Your task to perform on an android device: Open my contact list Image 0: 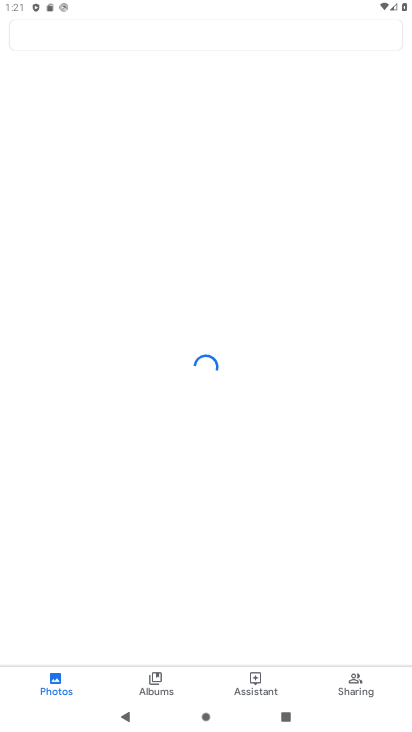
Step 0: press back button
Your task to perform on an android device: Open my contact list Image 1: 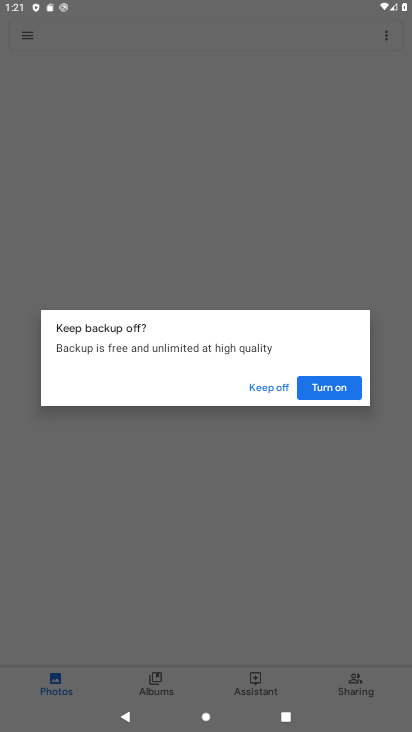
Step 1: press home button
Your task to perform on an android device: Open my contact list Image 2: 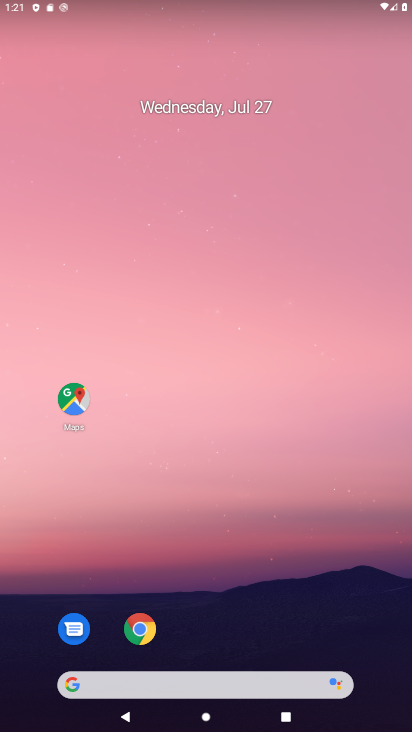
Step 2: drag from (205, 527) to (280, 42)
Your task to perform on an android device: Open my contact list Image 3: 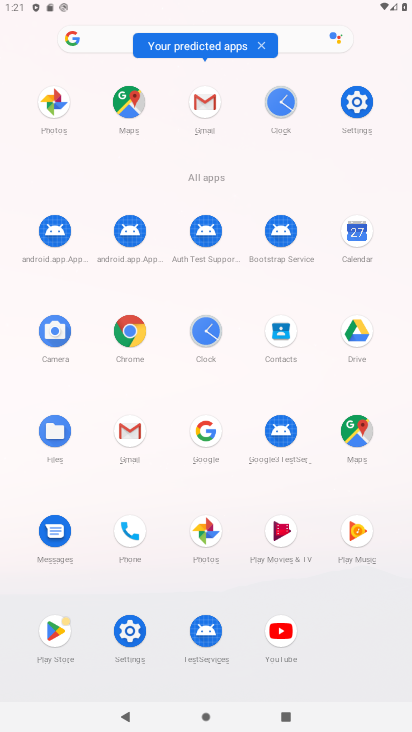
Step 3: click (275, 330)
Your task to perform on an android device: Open my contact list Image 4: 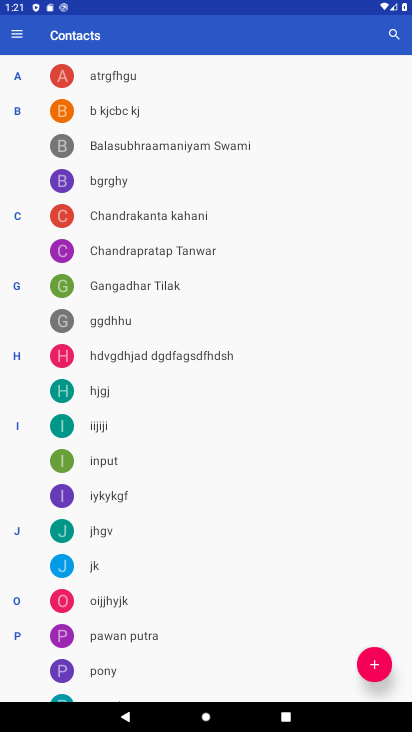
Step 4: task complete